Your task to perform on an android device: remove spam from my inbox in the gmail app Image 0: 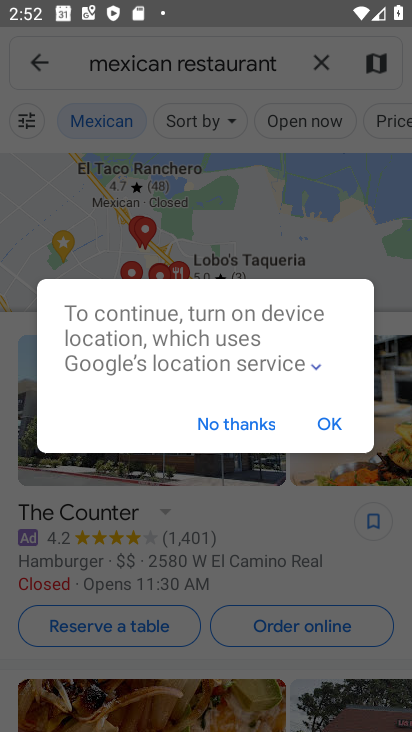
Step 0: press home button
Your task to perform on an android device: remove spam from my inbox in the gmail app Image 1: 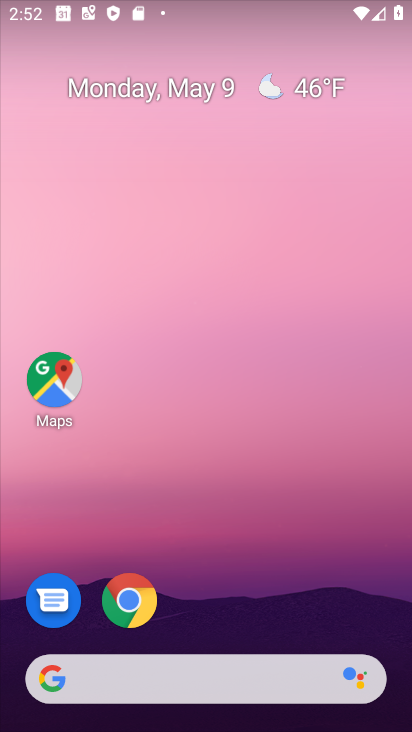
Step 1: drag from (205, 614) to (355, 65)
Your task to perform on an android device: remove spam from my inbox in the gmail app Image 2: 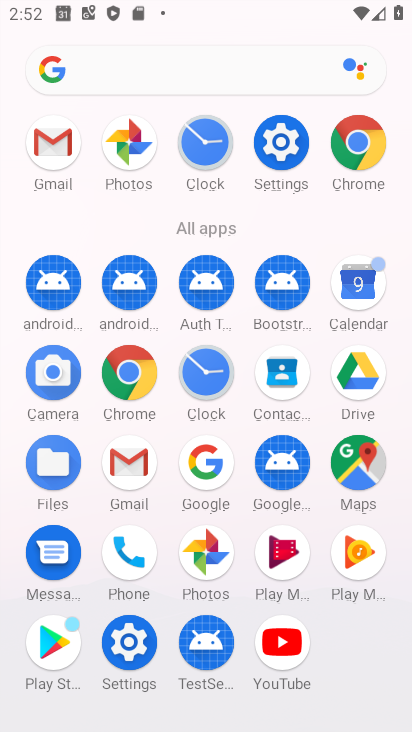
Step 2: click (136, 466)
Your task to perform on an android device: remove spam from my inbox in the gmail app Image 3: 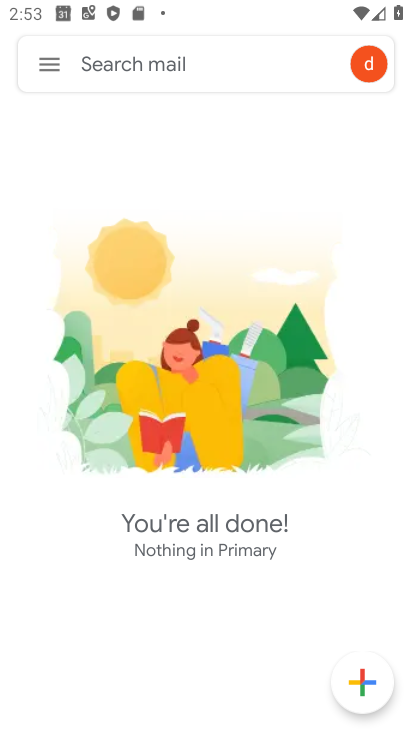
Step 3: click (45, 65)
Your task to perform on an android device: remove spam from my inbox in the gmail app Image 4: 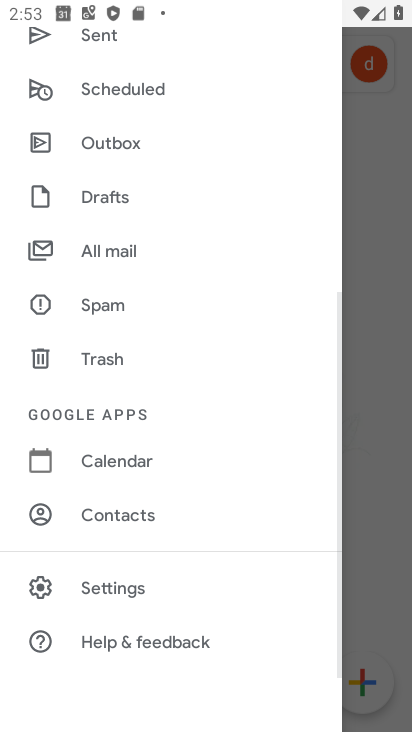
Step 4: click (100, 311)
Your task to perform on an android device: remove spam from my inbox in the gmail app Image 5: 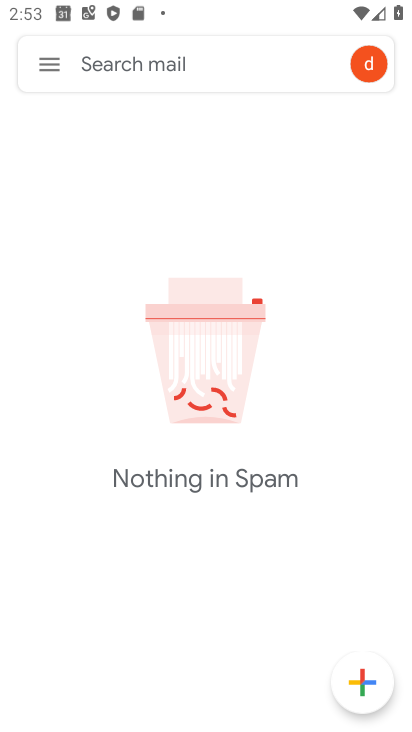
Step 5: task complete